Your task to perform on an android device: open the mobile data screen to see how much data has been used Image 0: 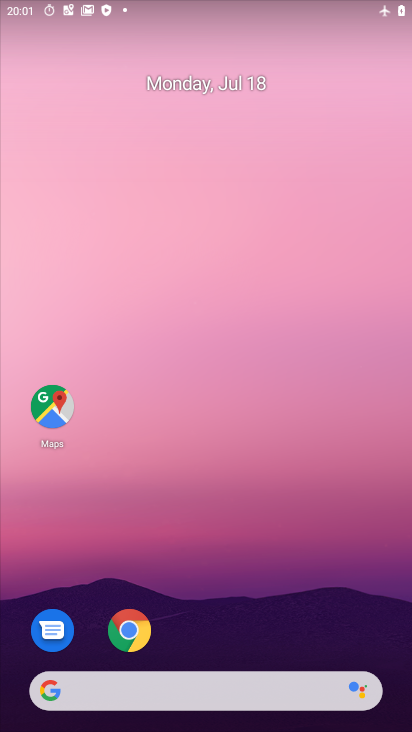
Step 0: drag from (290, 661) to (254, 169)
Your task to perform on an android device: open the mobile data screen to see how much data has been used Image 1: 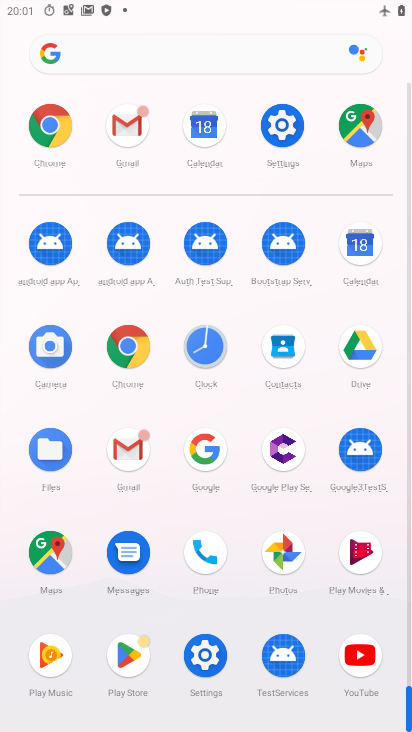
Step 1: click (283, 134)
Your task to perform on an android device: open the mobile data screen to see how much data has been used Image 2: 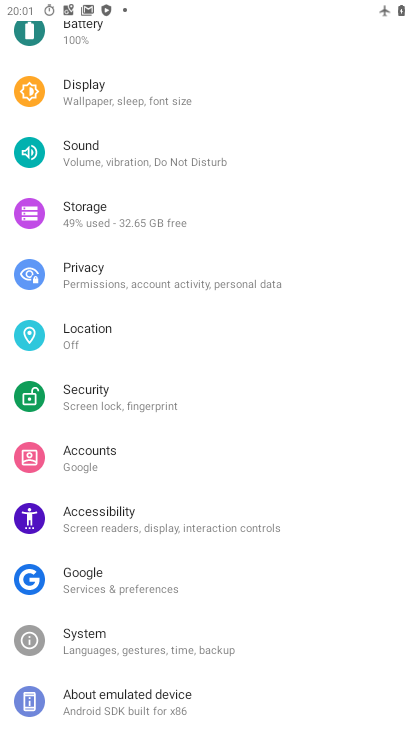
Step 2: drag from (181, 178) to (203, 649)
Your task to perform on an android device: open the mobile data screen to see how much data has been used Image 3: 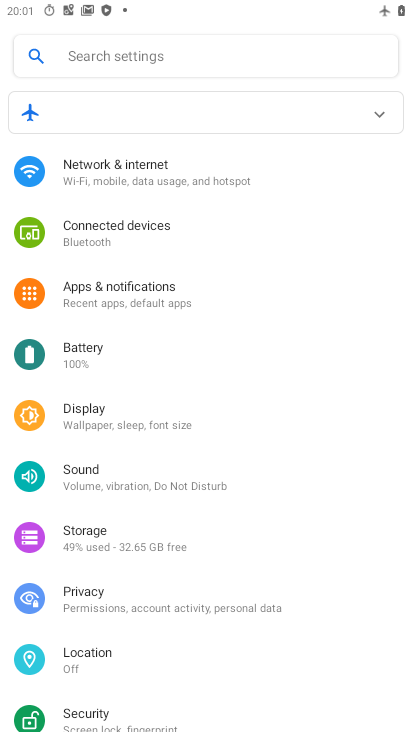
Step 3: click (111, 169)
Your task to perform on an android device: open the mobile data screen to see how much data has been used Image 4: 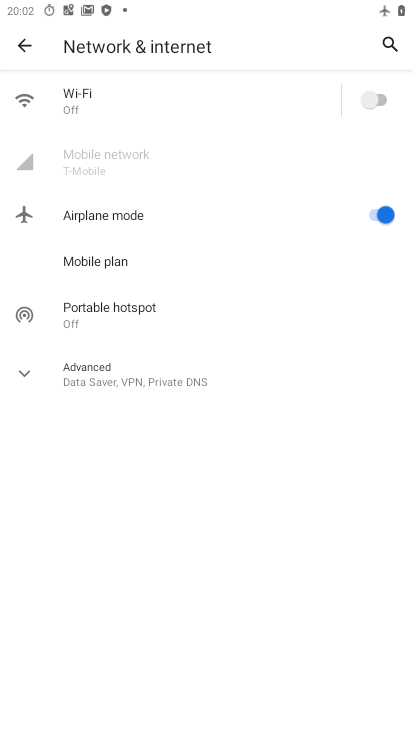
Step 4: click (100, 178)
Your task to perform on an android device: open the mobile data screen to see how much data has been used Image 5: 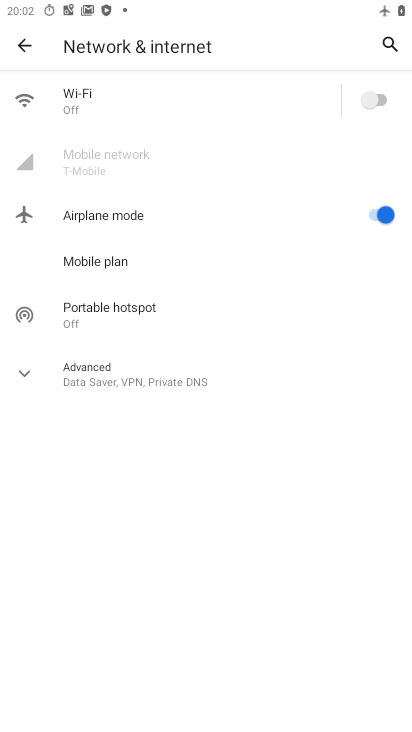
Step 5: task complete